Your task to perform on an android device: open app "LiveIn - Share Your Moment" (install if not already installed) Image 0: 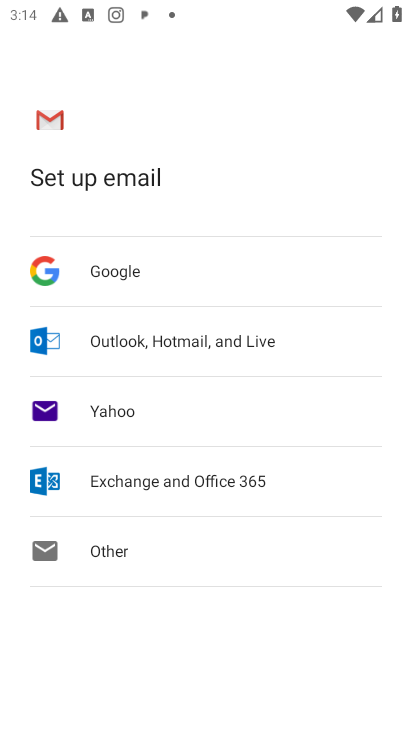
Step 0: press home button
Your task to perform on an android device: open app "LiveIn - Share Your Moment" (install if not already installed) Image 1: 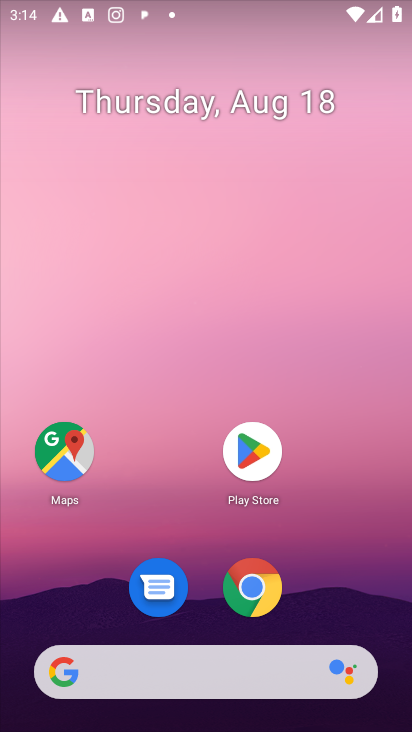
Step 1: click (240, 452)
Your task to perform on an android device: open app "LiveIn - Share Your Moment" (install if not already installed) Image 2: 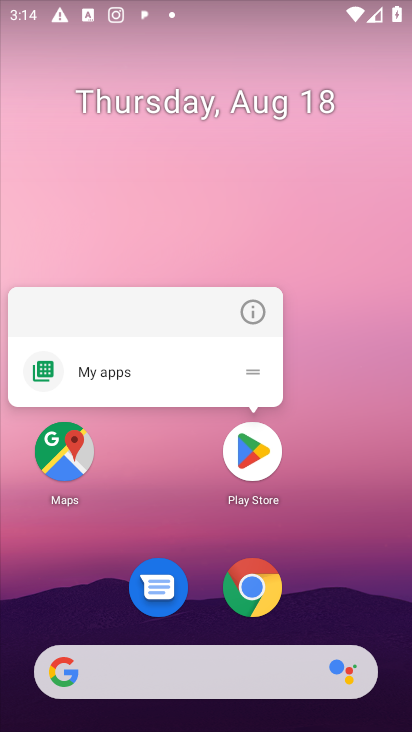
Step 2: click (240, 452)
Your task to perform on an android device: open app "LiveIn - Share Your Moment" (install if not already installed) Image 3: 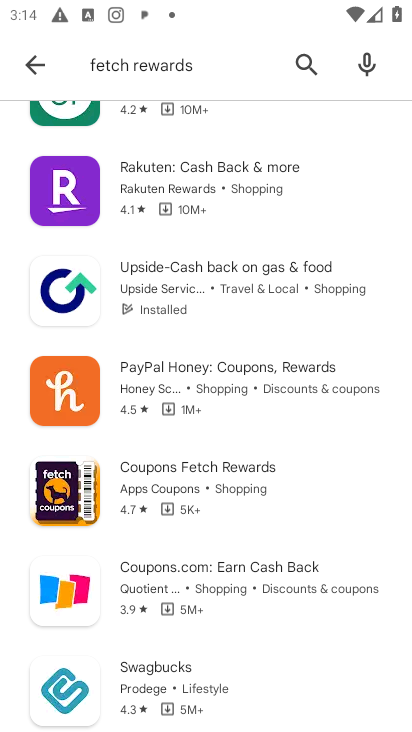
Step 3: click (296, 64)
Your task to perform on an android device: open app "LiveIn - Share Your Moment" (install if not already installed) Image 4: 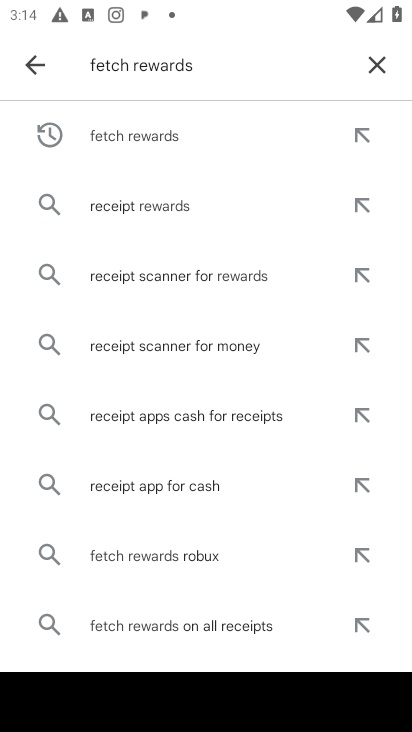
Step 4: click (369, 65)
Your task to perform on an android device: open app "LiveIn - Share Your Moment" (install if not already installed) Image 5: 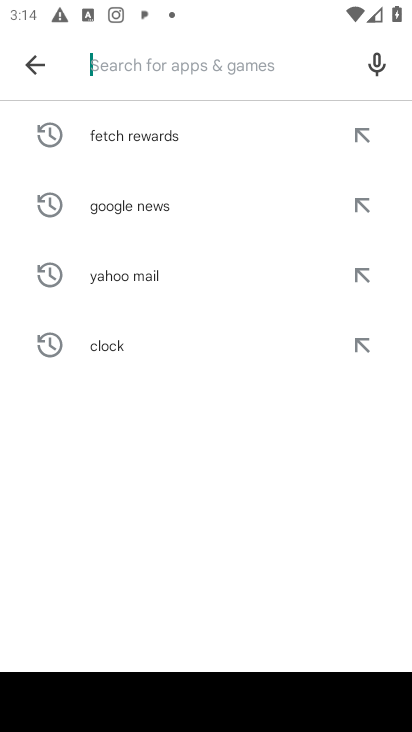
Step 5: type "LiveIn - Share Your Moment"
Your task to perform on an android device: open app "LiveIn - Share Your Moment" (install if not already installed) Image 6: 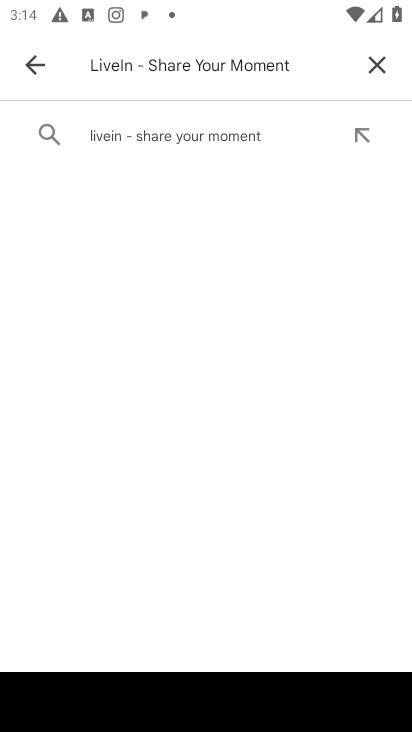
Step 6: click (203, 143)
Your task to perform on an android device: open app "LiveIn - Share Your Moment" (install if not already installed) Image 7: 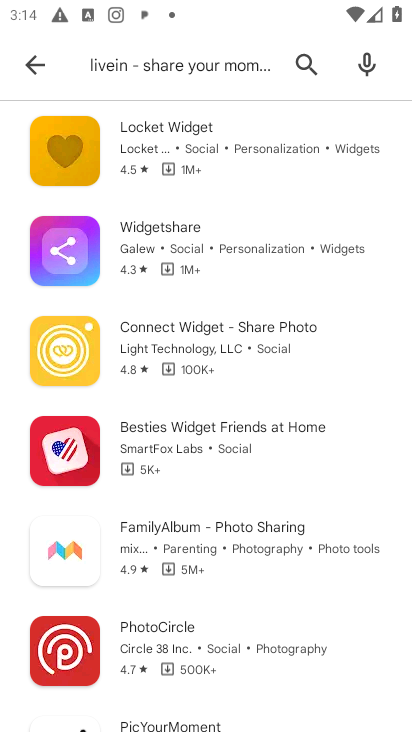
Step 7: task complete